Your task to perform on an android device: change the clock display to digital Image 0: 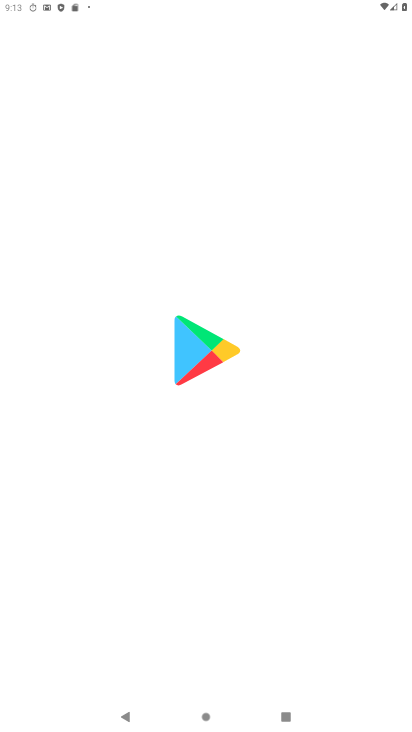
Step 0: drag from (233, 642) to (211, 205)
Your task to perform on an android device: change the clock display to digital Image 1: 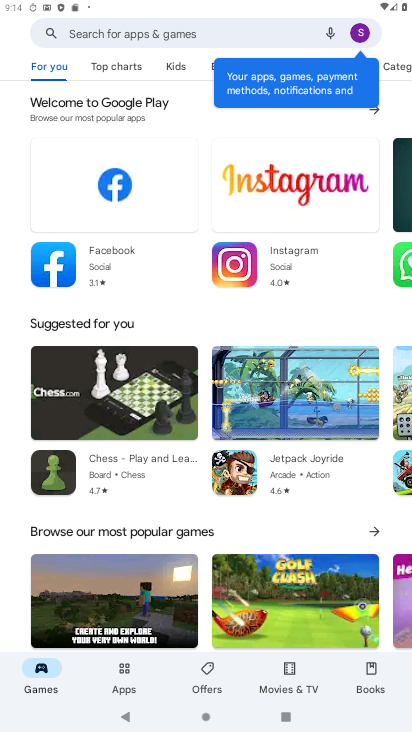
Step 1: press back button
Your task to perform on an android device: change the clock display to digital Image 2: 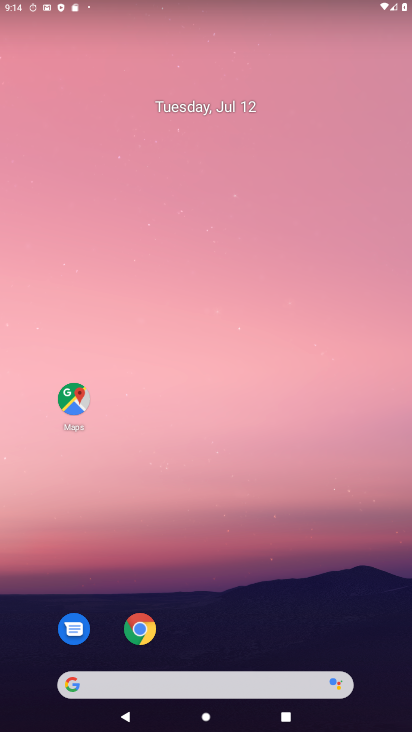
Step 2: drag from (245, 665) to (156, 266)
Your task to perform on an android device: change the clock display to digital Image 3: 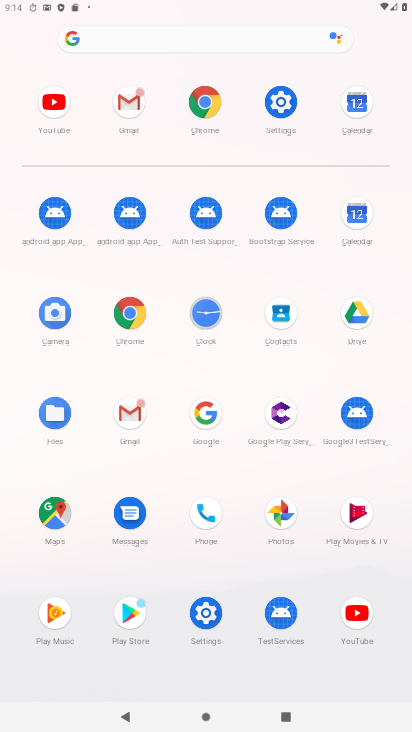
Step 3: click (217, 310)
Your task to perform on an android device: change the clock display to digital Image 4: 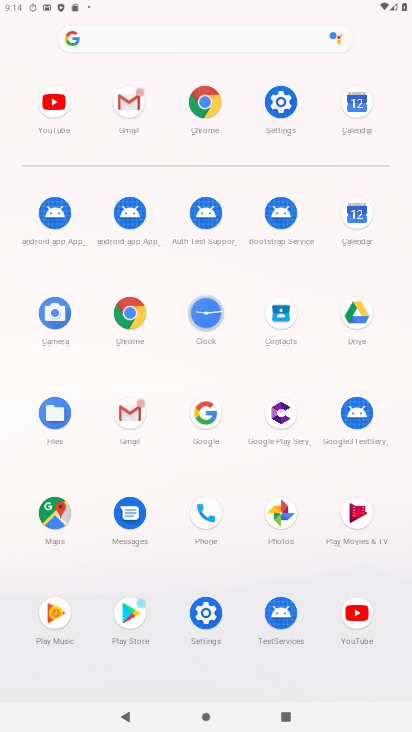
Step 4: click (216, 310)
Your task to perform on an android device: change the clock display to digital Image 5: 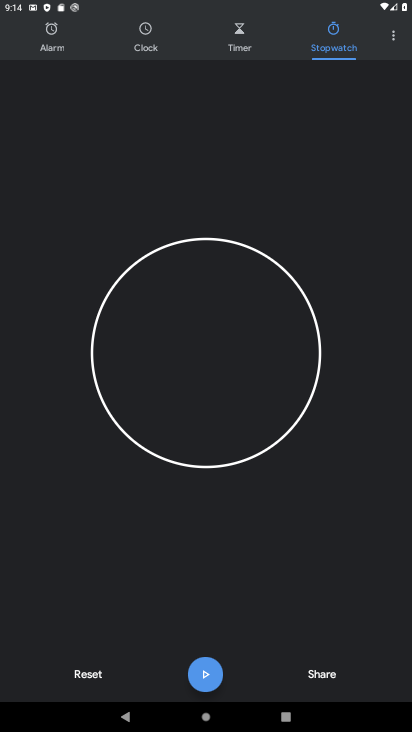
Step 5: click (389, 38)
Your task to perform on an android device: change the clock display to digital Image 6: 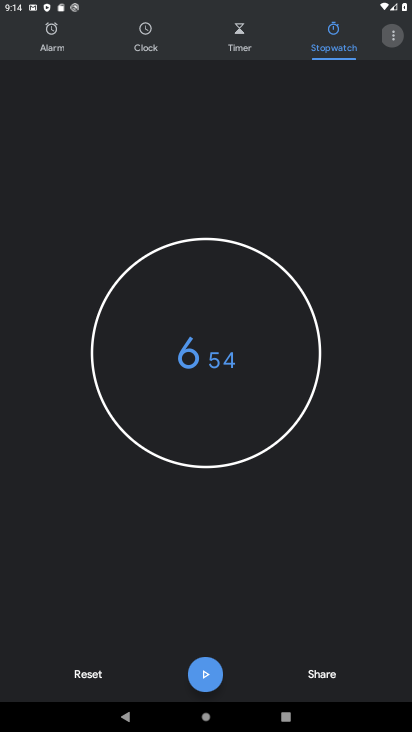
Step 6: click (389, 38)
Your task to perform on an android device: change the clock display to digital Image 7: 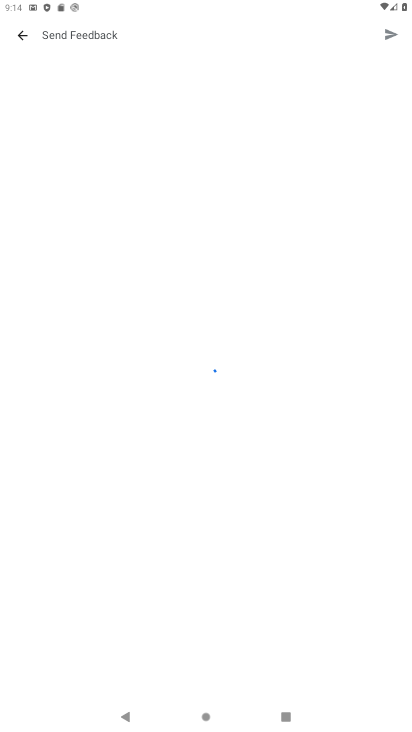
Step 7: click (28, 41)
Your task to perform on an android device: change the clock display to digital Image 8: 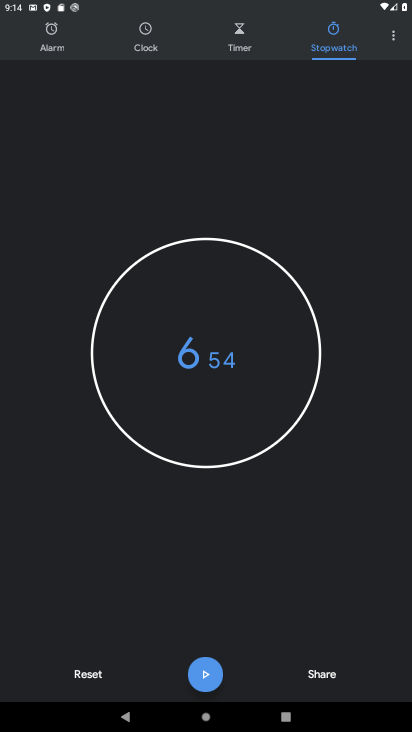
Step 8: click (391, 38)
Your task to perform on an android device: change the clock display to digital Image 9: 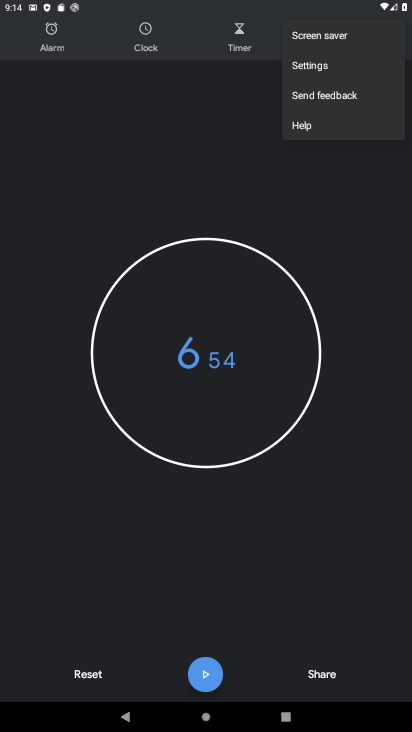
Step 9: click (333, 76)
Your task to perform on an android device: change the clock display to digital Image 10: 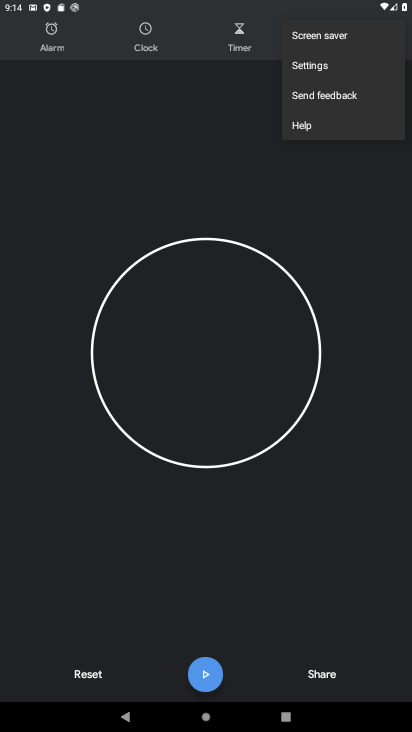
Step 10: click (316, 63)
Your task to perform on an android device: change the clock display to digital Image 11: 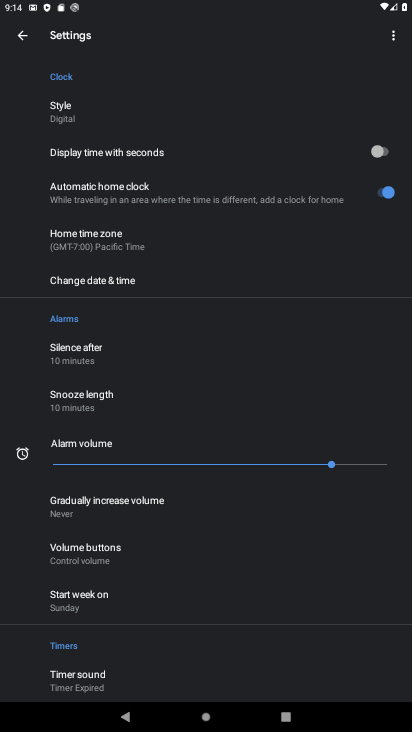
Step 11: click (377, 154)
Your task to perform on an android device: change the clock display to digital Image 12: 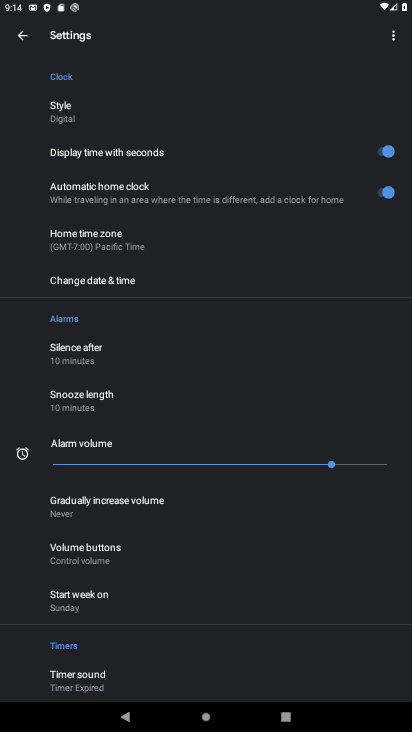
Step 12: click (396, 154)
Your task to perform on an android device: change the clock display to digital Image 13: 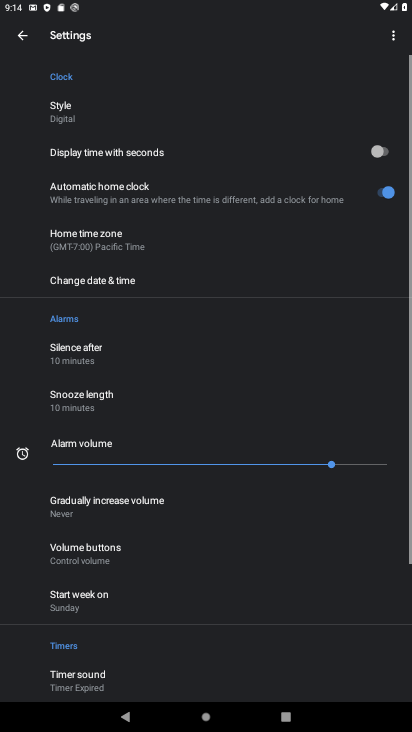
Step 13: click (85, 110)
Your task to perform on an android device: change the clock display to digital Image 14: 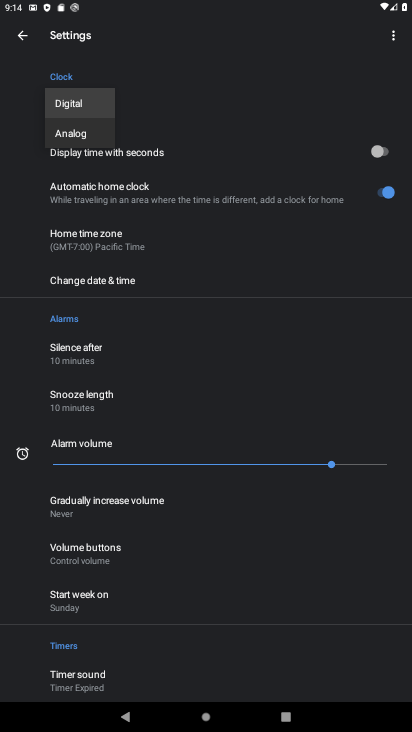
Step 14: click (71, 99)
Your task to perform on an android device: change the clock display to digital Image 15: 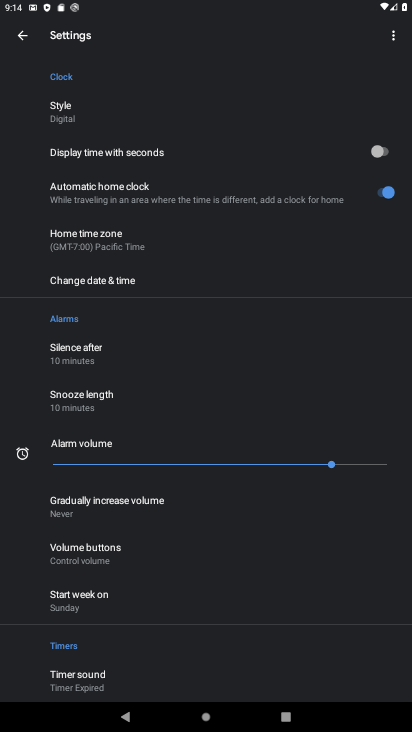
Step 15: task complete